Your task to perform on an android device: create a new album in the google photos Image 0: 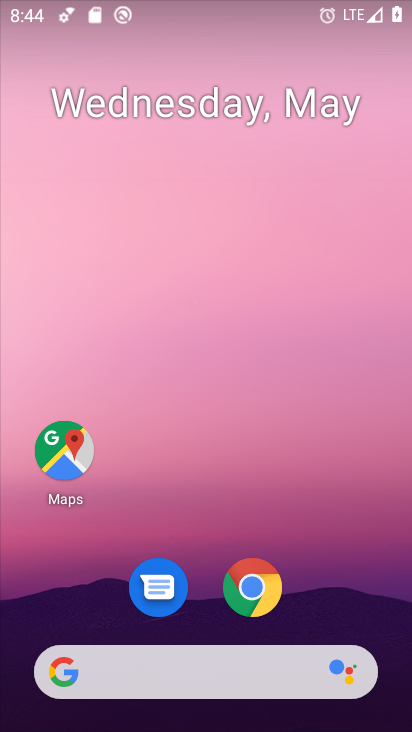
Step 0: drag from (204, 617) to (220, 146)
Your task to perform on an android device: create a new album in the google photos Image 1: 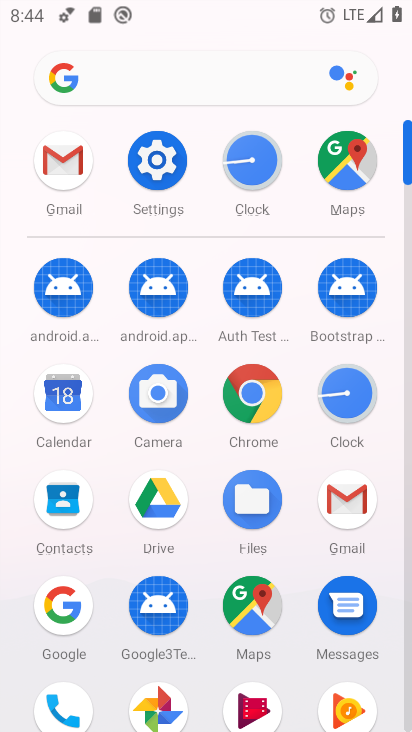
Step 1: drag from (204, 605) to (221, 385)
Your task to perform on an android device: create a new album in the google photos Image 2: 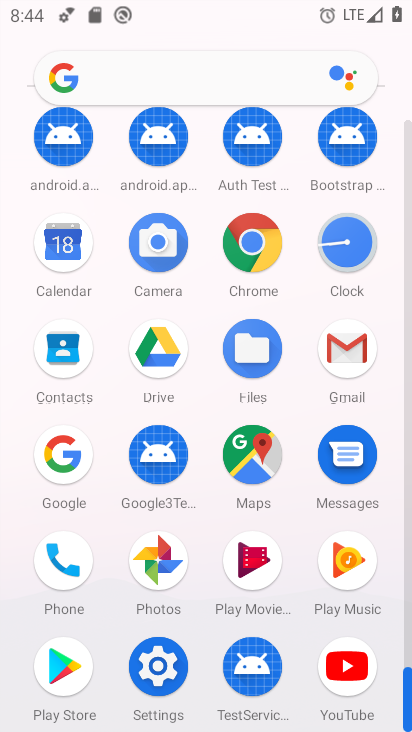
Step 2: click (156, 565)
Your task to perform on an android device: create a new album in the google photos Image 3: 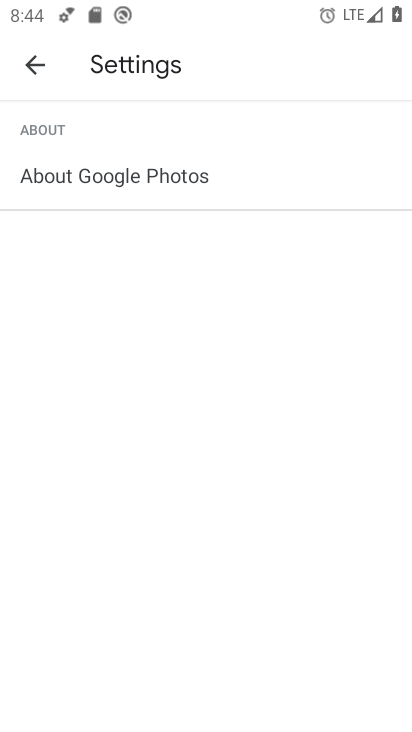
Step 3: click (46, 75)
Your task to perform on an android device: create a new album in the google photos Image 4: 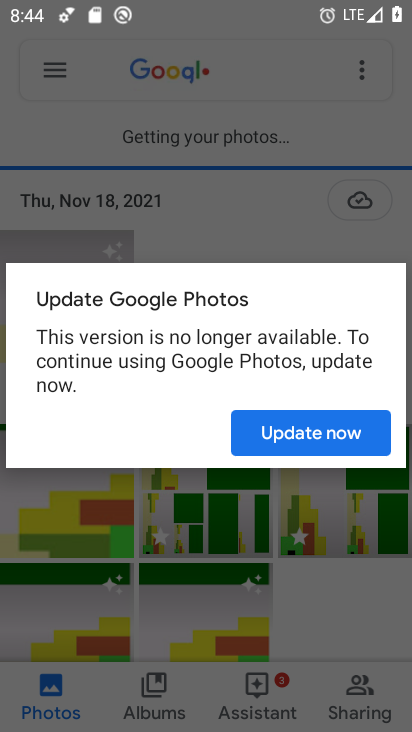
Step 4: click (318, 432)
Your task to perform on an android device: create a new album in the google photos Image 5: 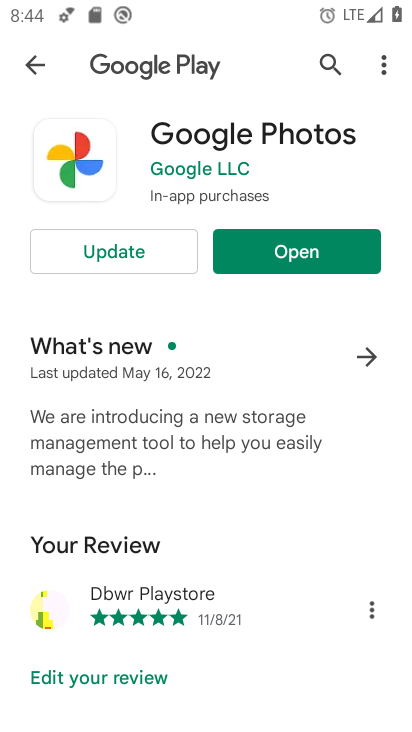
Step 5: click (126, 256)
Your task to perform on an android device: create a new album in the google photos Image 6: 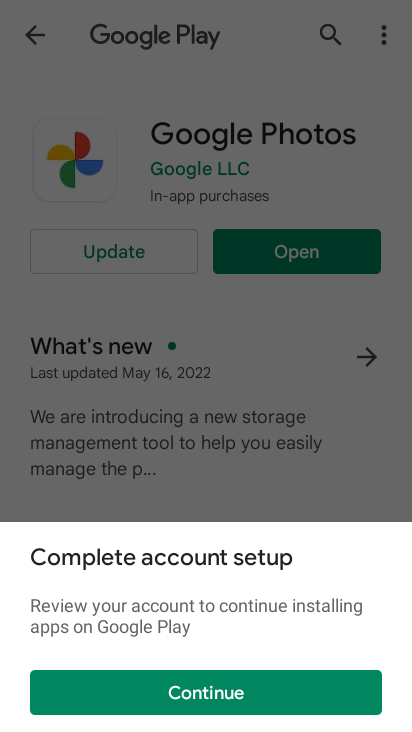
Step 6: click (232, 703)
Your task to perform on an android device: create a new album in the google photos Image 7: 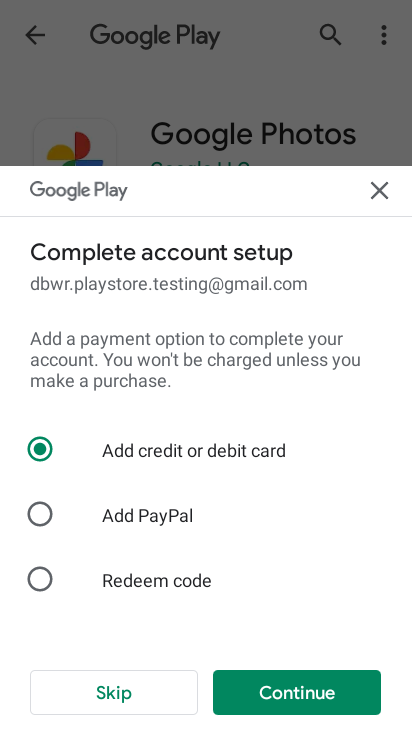
Step 7: click (136, 680)
Your task to perform on an android device: create a new album in the google photos Image 8: 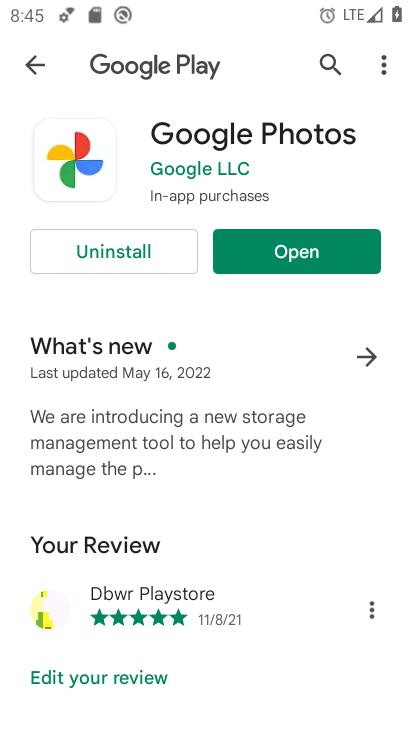
Step 8: click (286, 250)
Your task to perform on an android device: create a new album in the google photos Image 9: 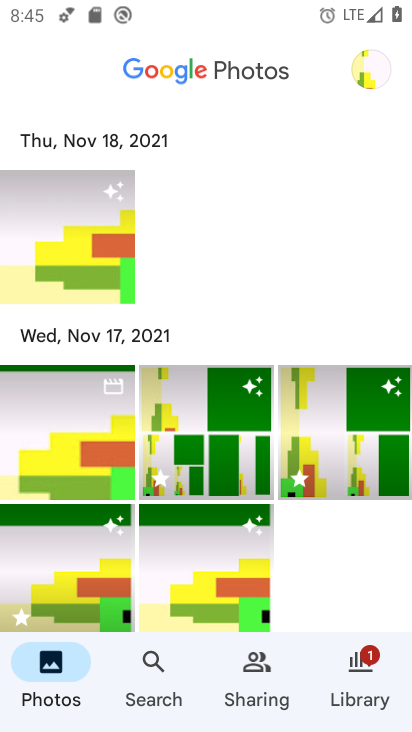
Step 9: click (362, 659)
Your task to perform on an android device: create a new album in the google photos Image 10: 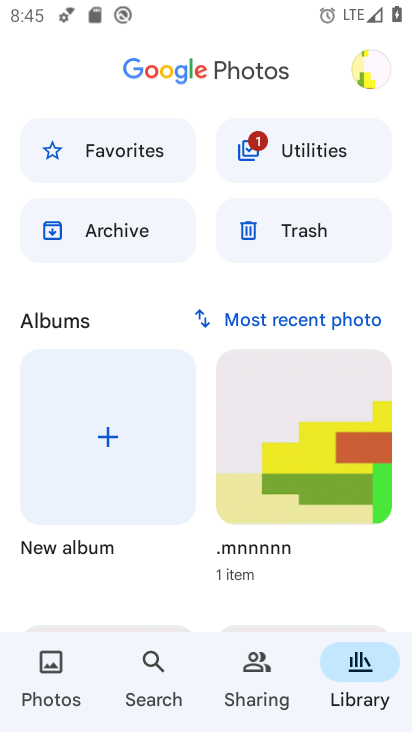
Step 10: click (94, 444)
Your task to perform on an android device: create a new album in the google photos Image 11: 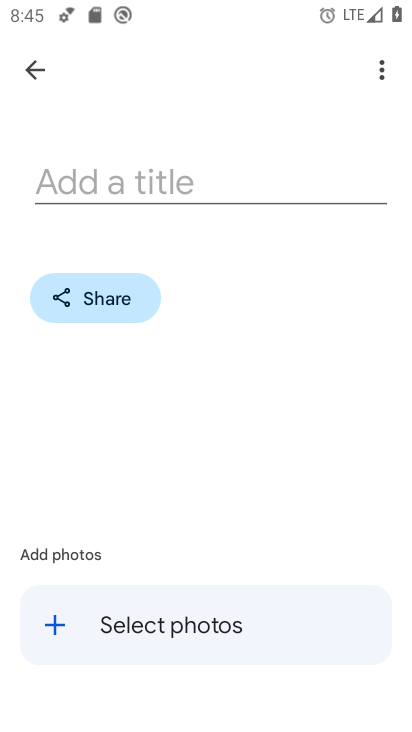
Step 11: click (182, 179)
Your task to perform on an android device: create a new album in the google photos Image 12: 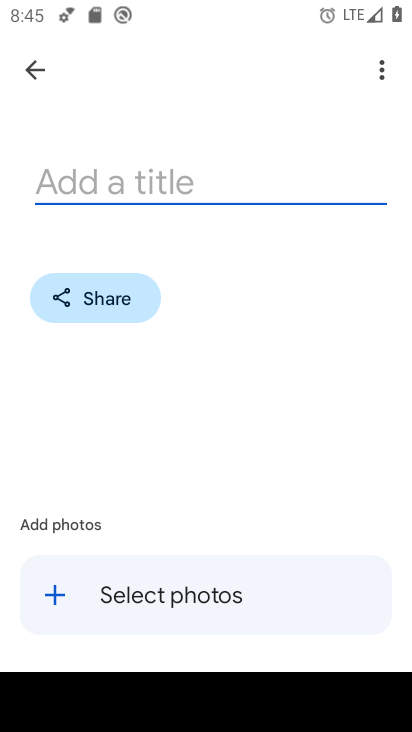
Step 12: type "dread"
Your task to perform on an android device: create a new album in the google photos Image 13: 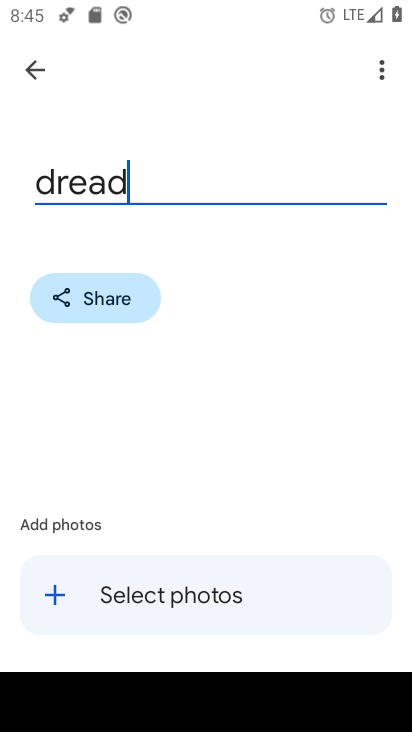
Step 13: click (36, 590)
Your task to perform on an android device: create a new album in the google photos Image 14: 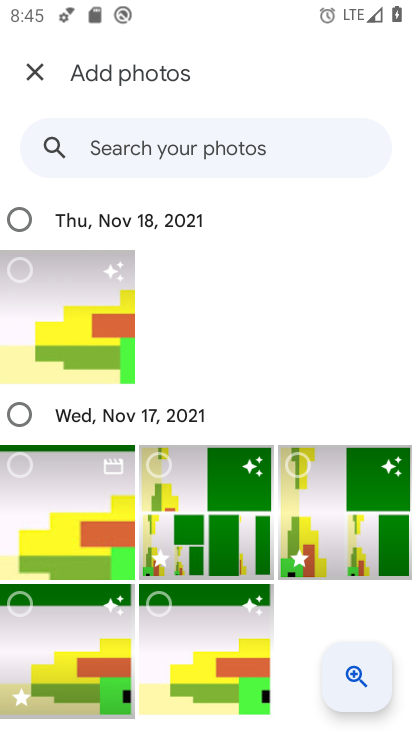
Step 14: click (33, 288)
Your task to perform on an android device: create a new album in the google photos Image 15: 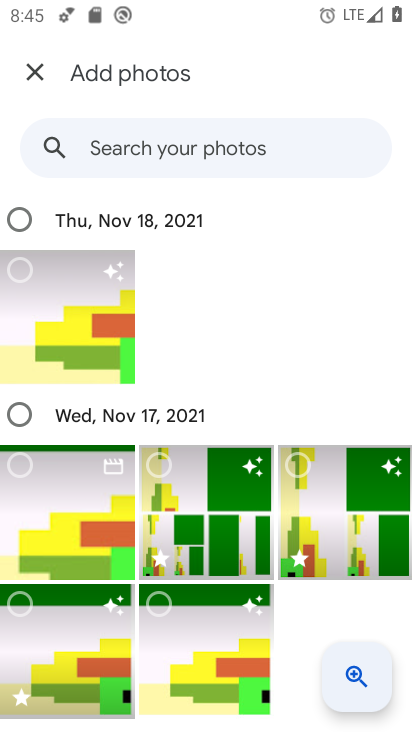
Step 15: click (324, 482)
Your task to perform on an android device: create a new album in the google photos Image 16: 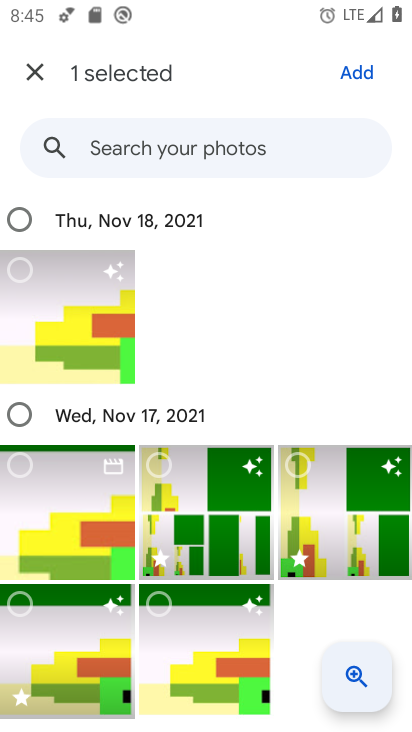
Step 16: click (183, 610)
Your task to perform on an android device: create a new album in the google photos Image 17: 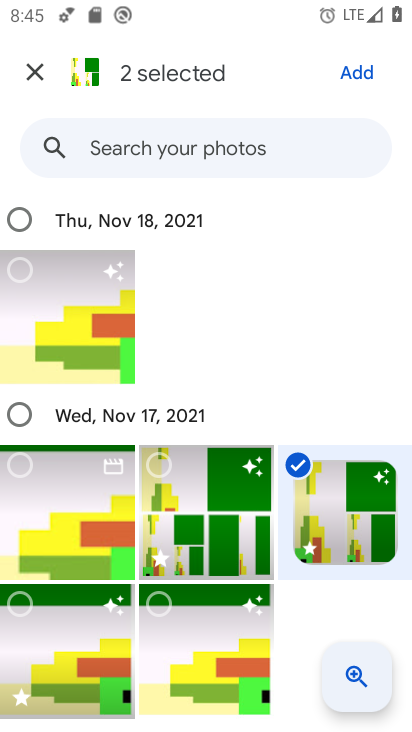
Step 17: click (71, 619)
Your task to perform on an android device: create a new album in the google photos Image 18: 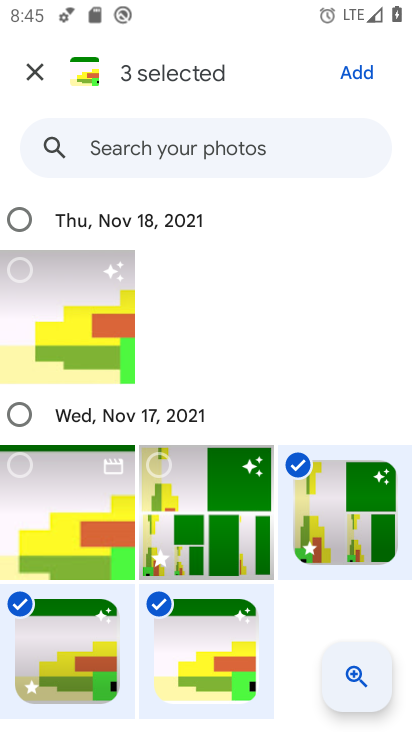
Step 18: click (197, 468)
Your task to perform on an android device: create a new album in the google photos Image 19: 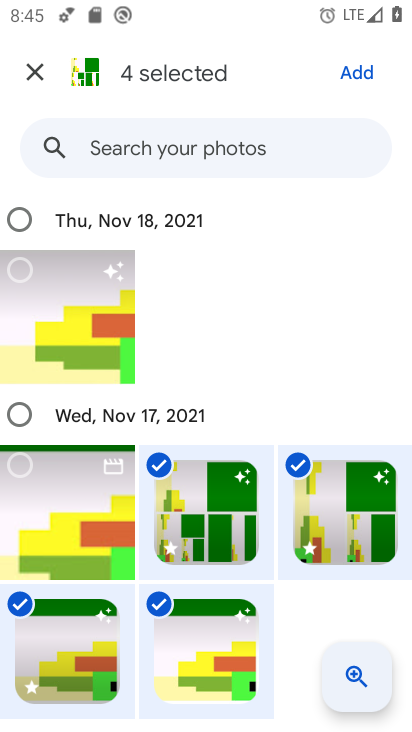
Step 19: task complete